Your task to perform on an android device: turn on sleep mode Image 0: 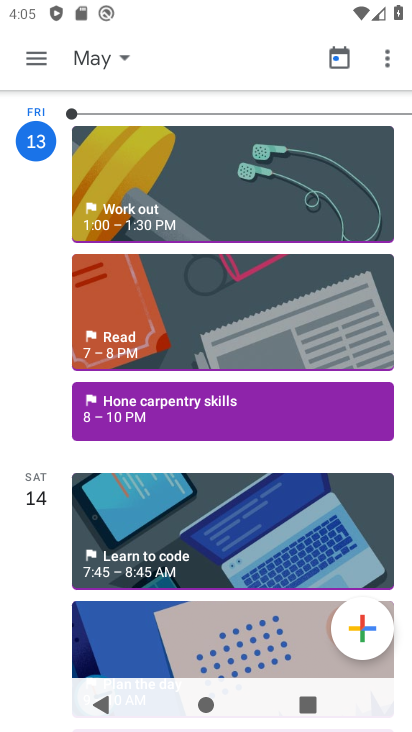
Step 0: press back button
Your task to perform on an android device: turn on sleep mode Image 1: 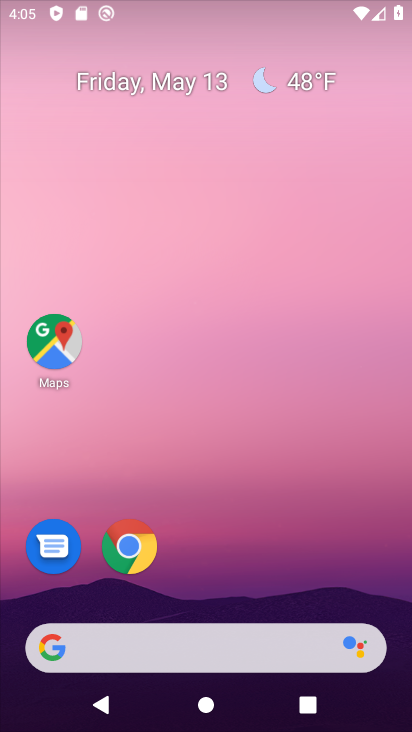
Step 1: drag from (307, 553) to (127, 90)
Your task to perform on an android device: turn on sleep mode Image 2: 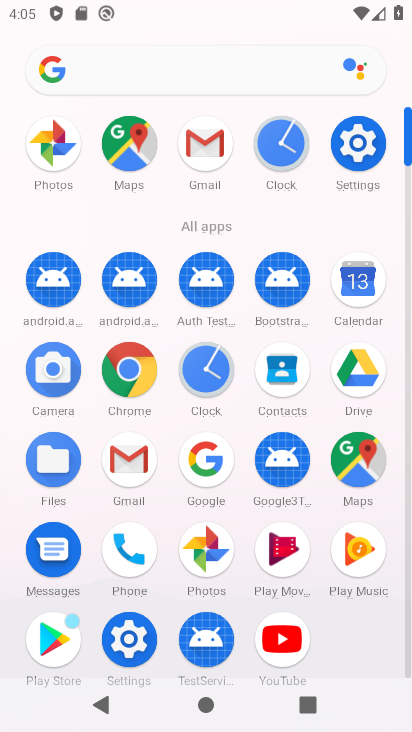
Step 2: click (357, 149)
Your task to perform on an android device: turn on sleep mode Image 3: 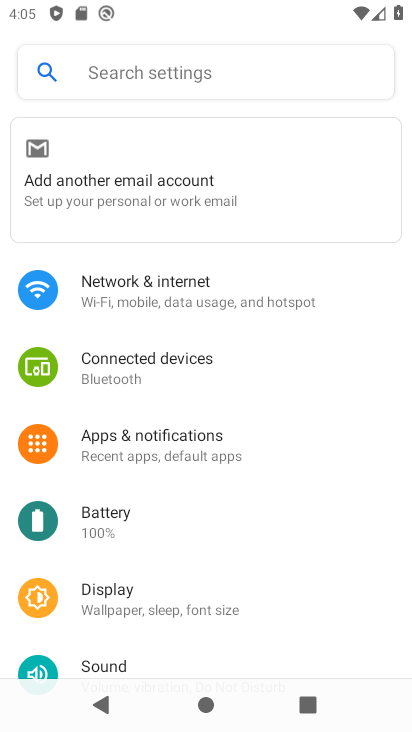
Step 3: click (106, 594)
Your task to perform on an android device: turn on sleep mode Image 4: 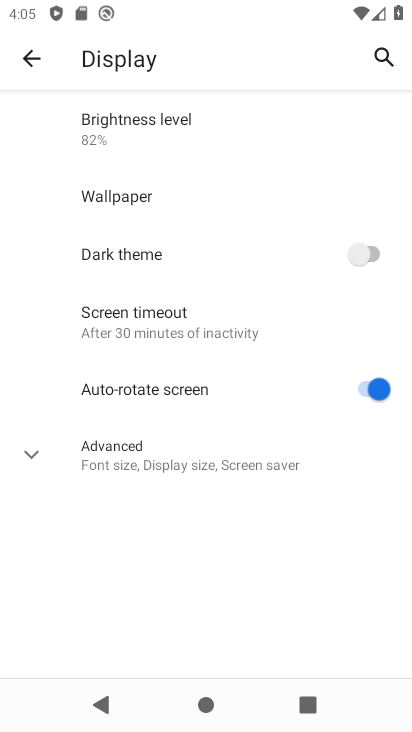
Step 4: click (125, 326)
Your task to perform on an android device: turn on sleep mode Image 5: 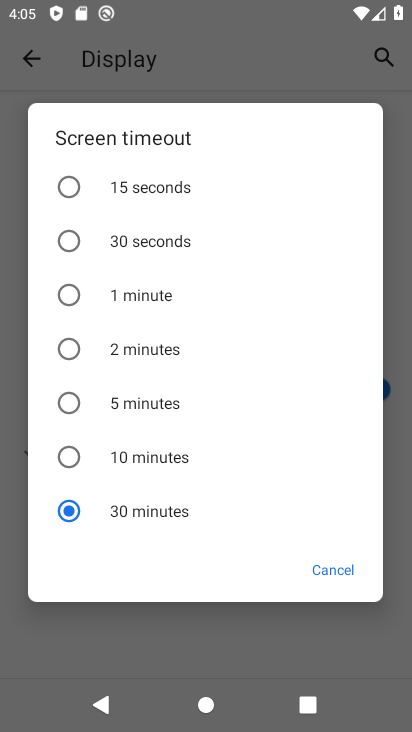
Step 5: task complete